Your task to perform on an android device: Go to Maps Image 0: 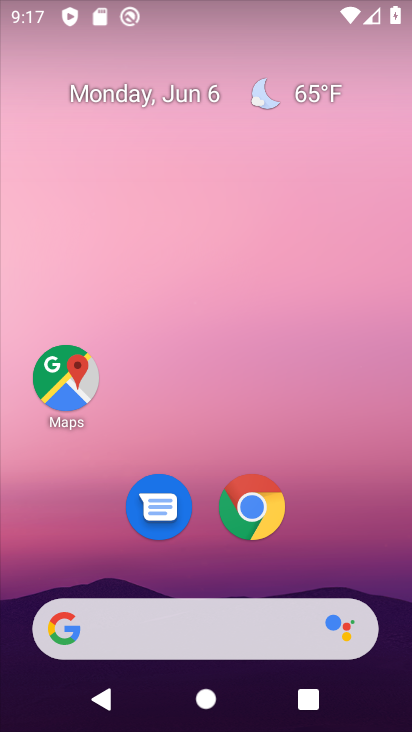
Step 0: click (48, 356)
Your task to perform on an android device: Go to Maps Image 1: 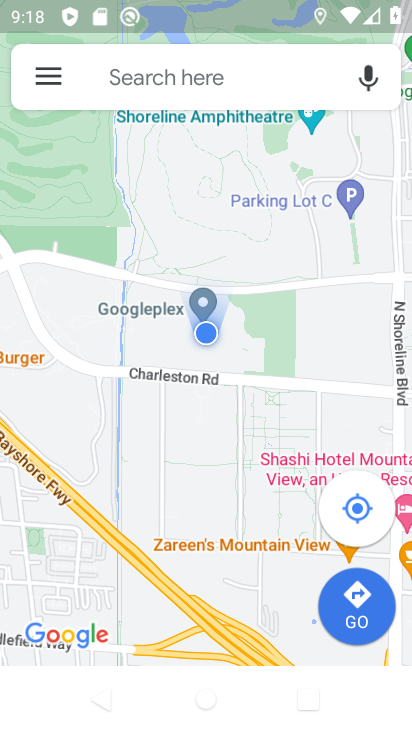
Step 1: task complete